Your task to perform on an android device: stop showing notifications on the lock screen Image 0: 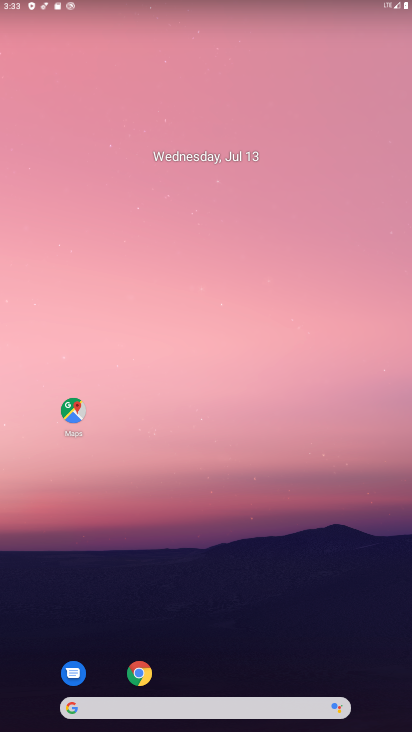
Step 0: drag from (225, 690) to (292, 208)
Your task to perform on an android device: stop showing notifications on the lock screen Image 1: 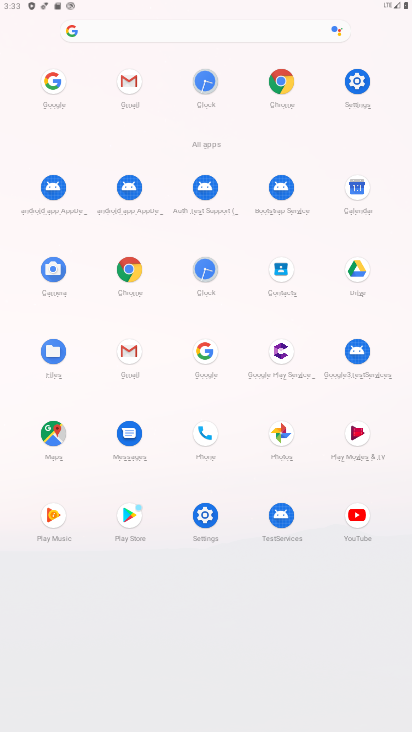
Step 1: click (357, 81)
Your task to perform on an android device: stop showing notifications on the lock screen Image 2: 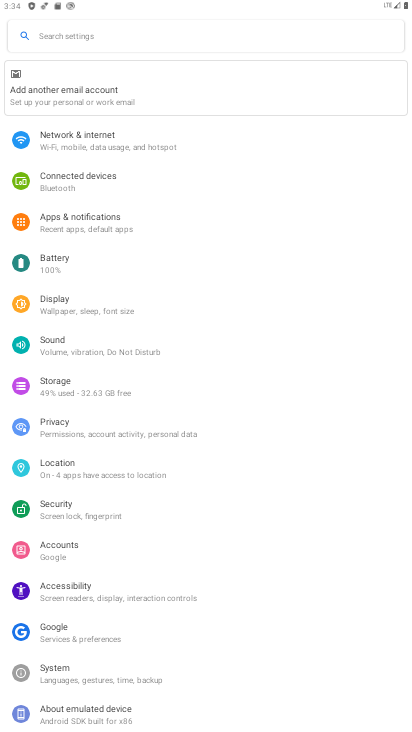
Step 2: click (108, 226)
Your task to perform on an android device: stop showing notifications on the lock screen Image 3: 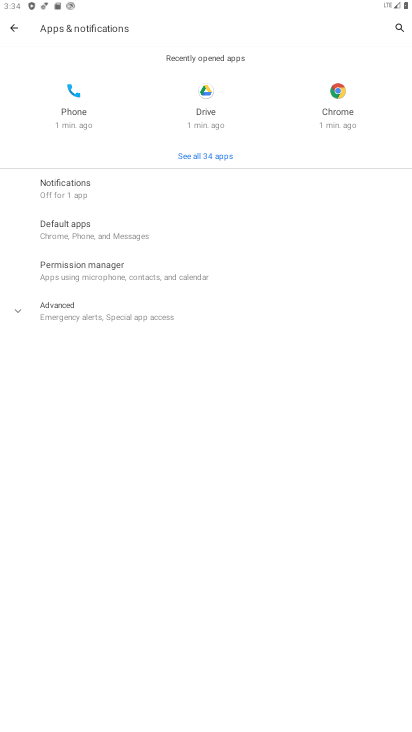
Step 3: click (66, 191)
Your task to perform on an android device: stop showing notifications on the lock screen Image 4: 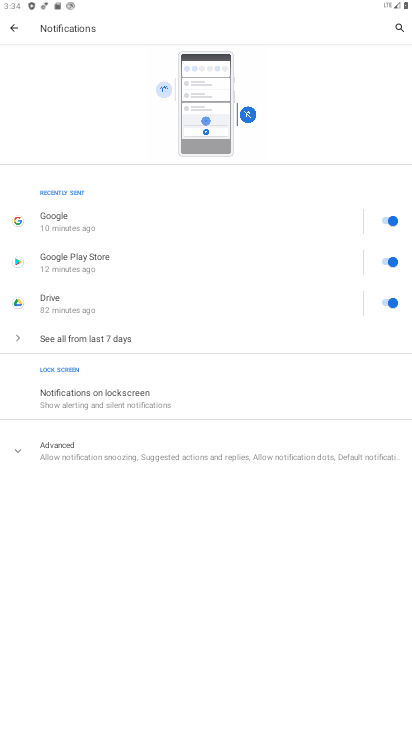
Step 4: click (96, 395)
Your task to perform on an android device: stop showing notifications on the lock screen Image 5: 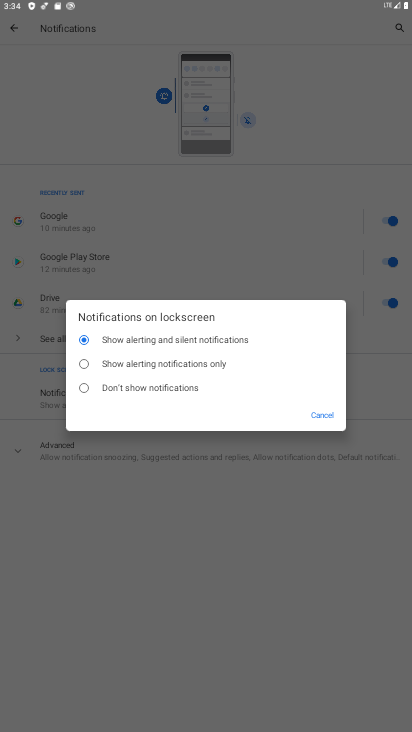
Step 5: click (84, 385)
Your task to perform on an android device: stop showing notifications on the lock screen Image 6: 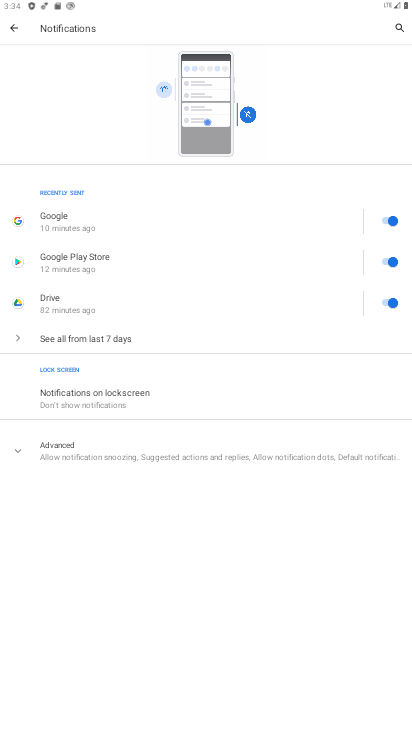
Step 6: task complete